Your task to perform on an android device: Go to battery settings Image 0: 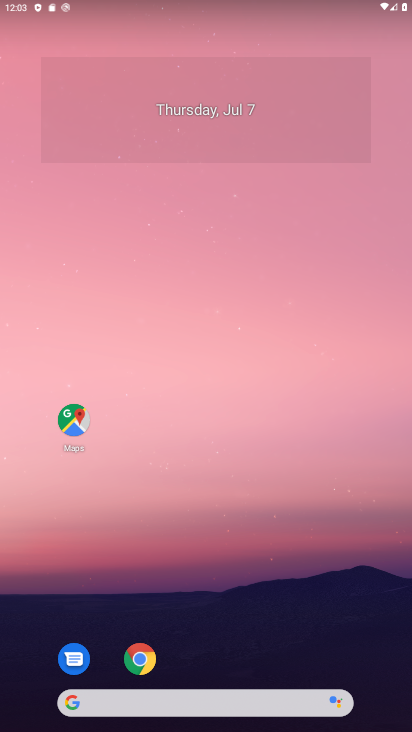
Step 0: drag from (165, 60) to (13, 364)
Your task to perform on an android device: Go to battery settings Image 1: 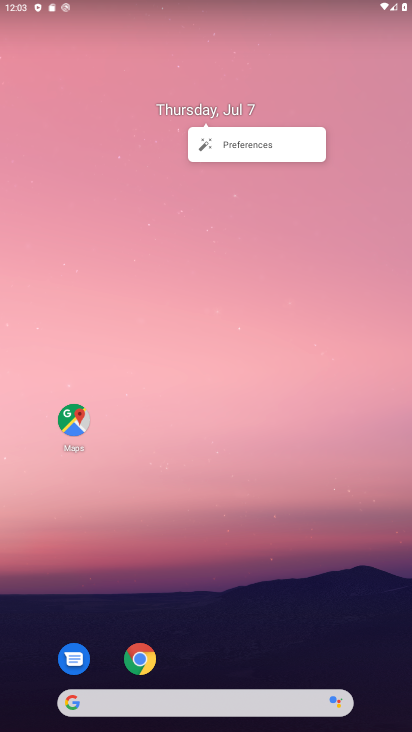
Step 1: drag from (197, 652) to (197, 31)
Your task to perform on an android device: Go to battery settings Image 2: 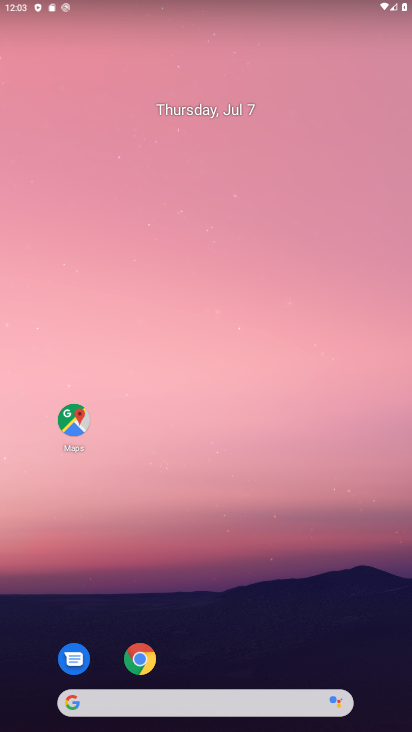
Step 2: drag from (199, 645) to (190, 29)
Your task to perform on an android device: Go to battery settings Image 3: 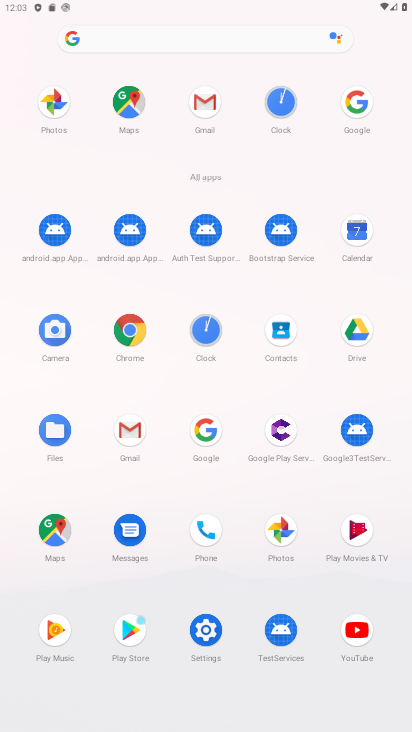
Step 3: click (210, 637)
Your task to perform on an android device: Go to battery settings Image 4: 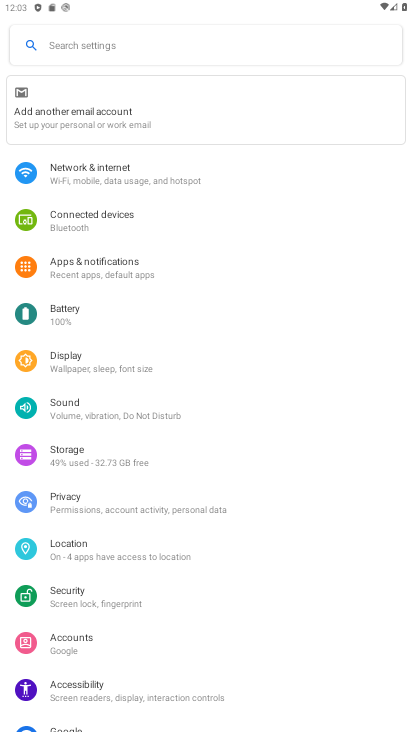
Step 4: click (85, 319)
Your task to perform on an android device: Go to battery settings Image 5: 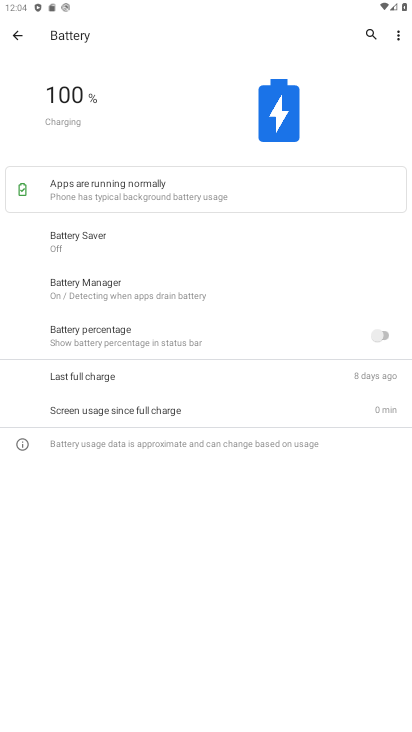
Step 5: task complete